Your task to perform on an android device: see tabs open on other devices in the chrome app Image 0: 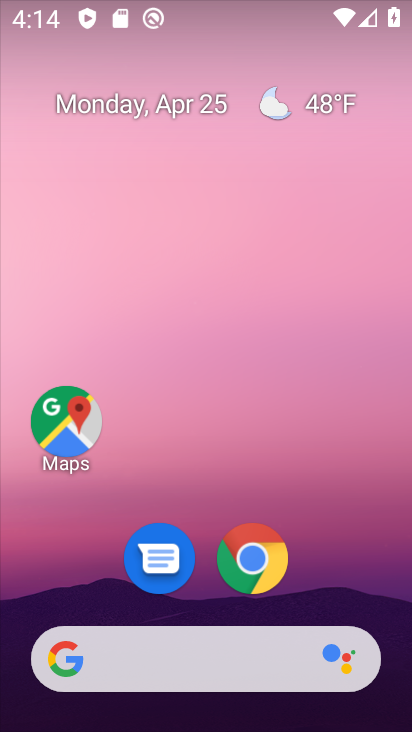
Step 0: drag from (327, 562) to (314, 23)
Your task to perform on an android device: see tabs open on other devices in the chrome app Image 1: 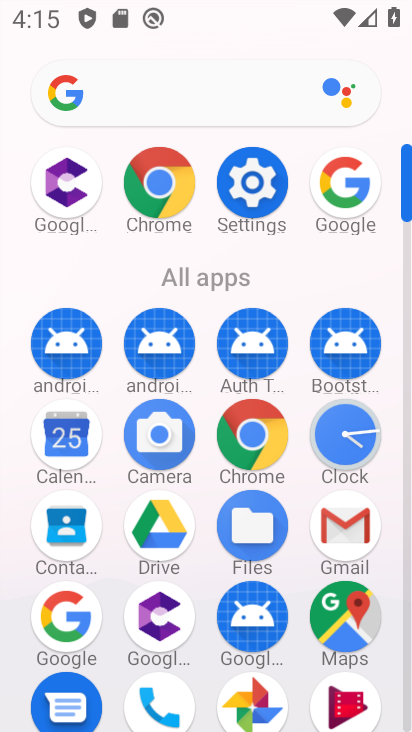
Step 1: click (154, 178)
Your task to perform on an android device: see tabs open on other devices in the chrome app Image 2: 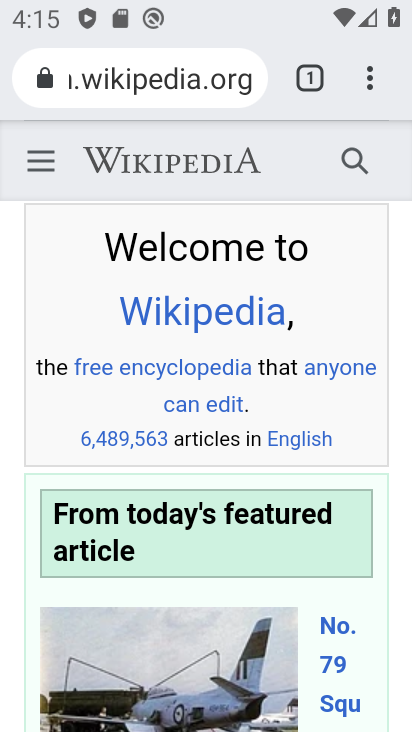
Step 2: drag from (373, 80) to (134, 366)
Your task to perform on an android device: see tabs open on other devices in the chrome app Image 3: 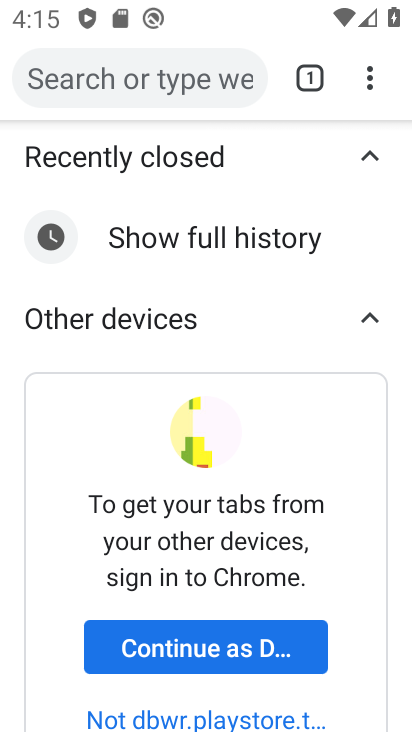
Step 3: click (218, 647)
Your task to perform on an android device: see tabs open on other devices in the chrome app Image 4: 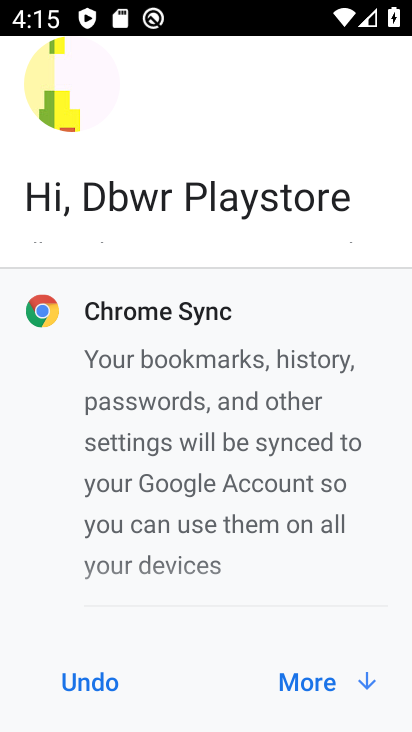
Step 4: click (312, 690)
Your task to perform on an android device: see tabs open on other devices in the chrome app Image 5: 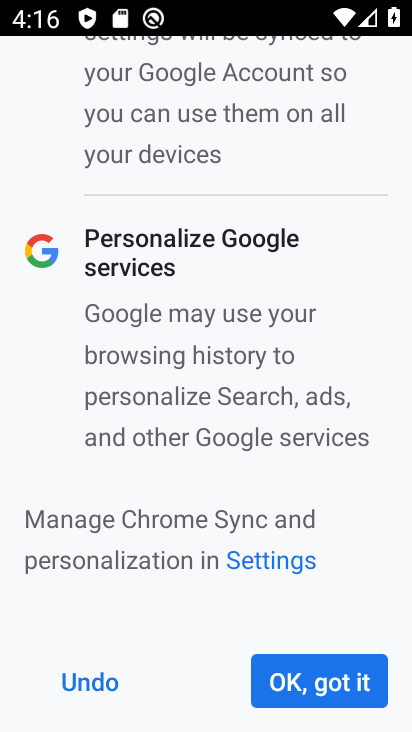
Step 5: click (337, 674)
Your task to perform on an android device: see tabs open on other devices in the chrome app Image 6: 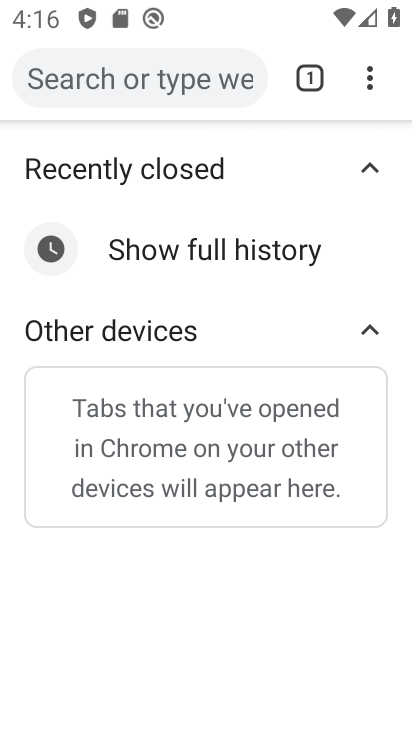
Step 6: task complete